Your task to perform on an android device: clear history in the chrome app Image 0: 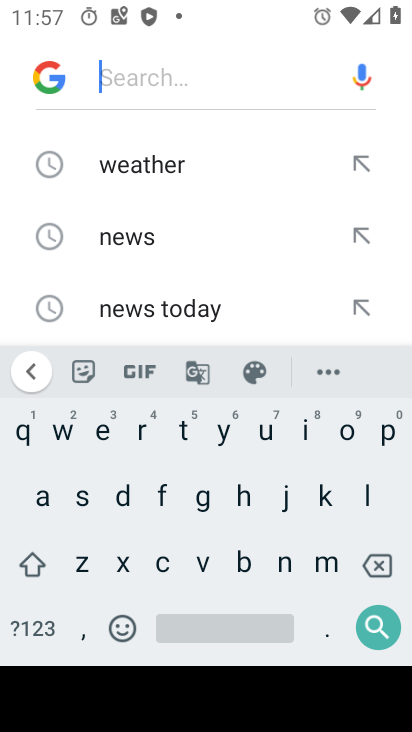
Step 0: press home button
Your task to perform on an android device: clear history in the chrome app Image 1: 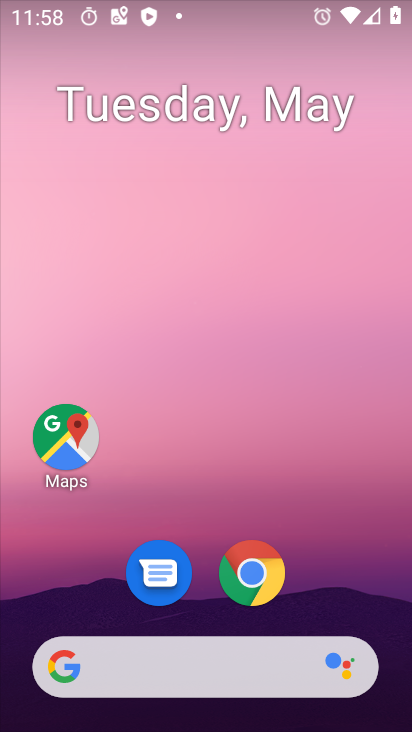
Step 1: drag from (219, 701) to (343, 145)
Your task to perform on an android device: clear history in the chrome app Image 2: 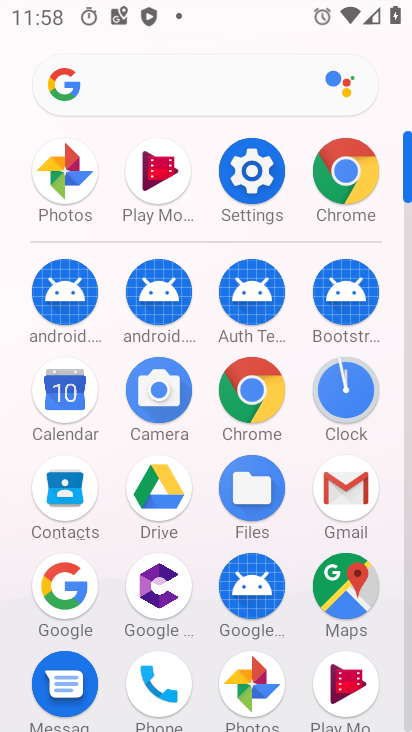
Step 2: click (324, 192)
Your task to perform on an android device: clear history in the chrome app Image 3: 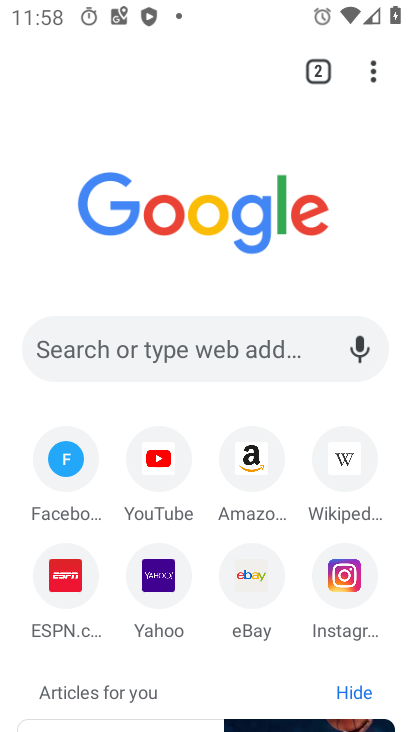
Step 3: click (375, 93)
Your task to perform on an android device: clear history in the chrome app Image 4: 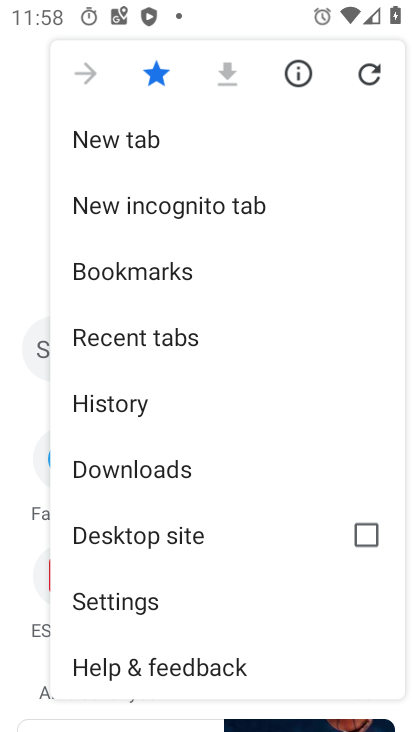
Step 4: click (108, 594)
Your task to perform on an android device: clear history in the chrome app Image 5: 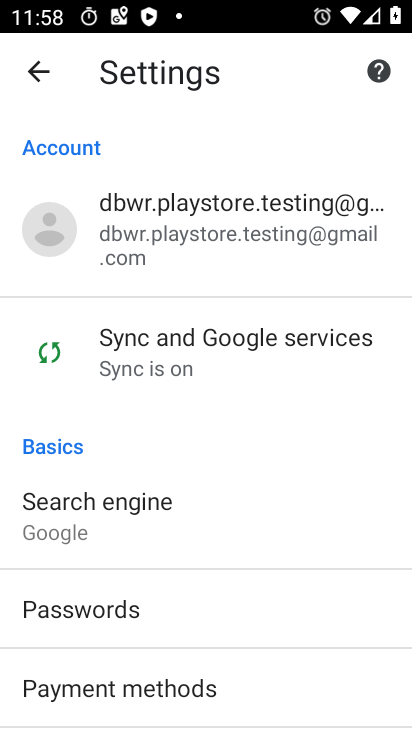
Step 5: drag from (87, 602) to (186, 371)
Your task to perform on an android device: clear history in the chrome app Image 6: 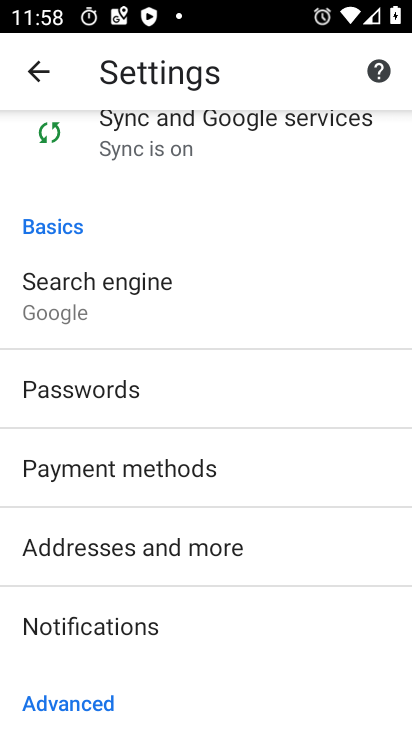
Step 6: drag from (114, 539) to (194, 428)
Your task to perform on an android device: clear history in the chrome app Image 7: 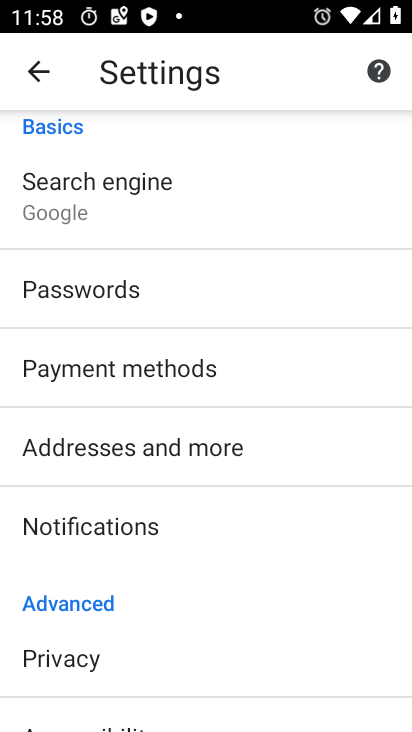
Step 7: drag from (107, 605) to (177, 475)
Your task to perform on an android device: clear history in the chrome app Image 8: 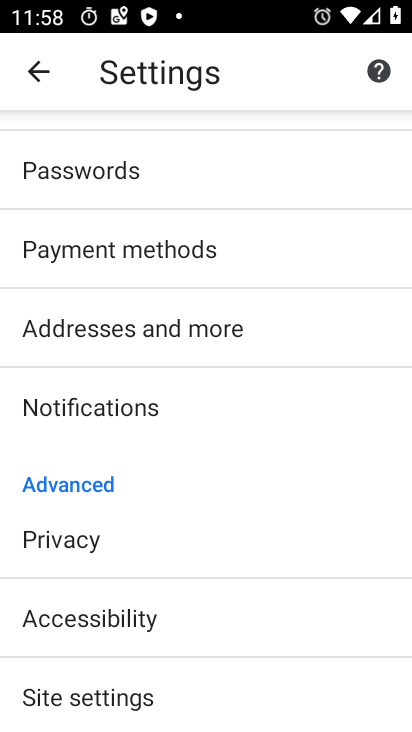
Step 8: click (91, 547)
Your task to perform on an android device: clear history in the chrome app Image 9: 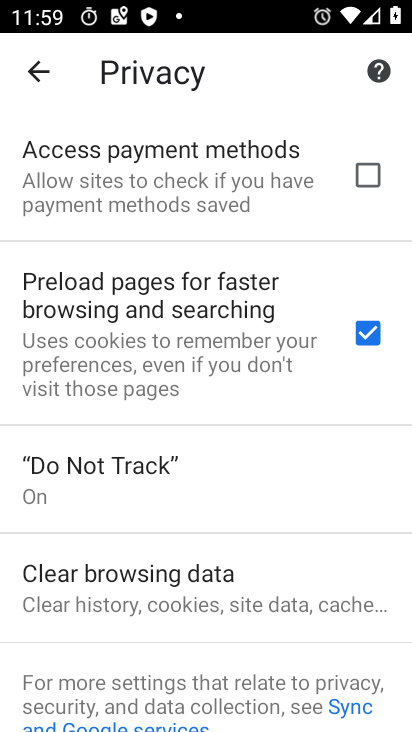
Step 9: drag from (137, 597) to (222, 252)
Your task to perform on an android device: clear history in the chrome app Image 10: 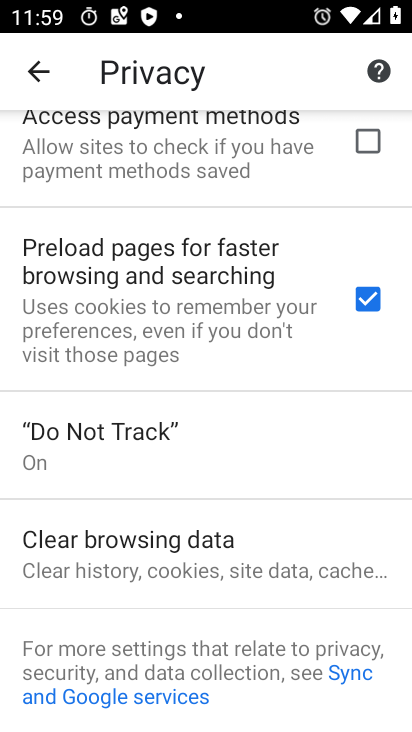
Step 10: click (122, 535)
Your task to perform on an android device: clear history in the chrome app Image 11: 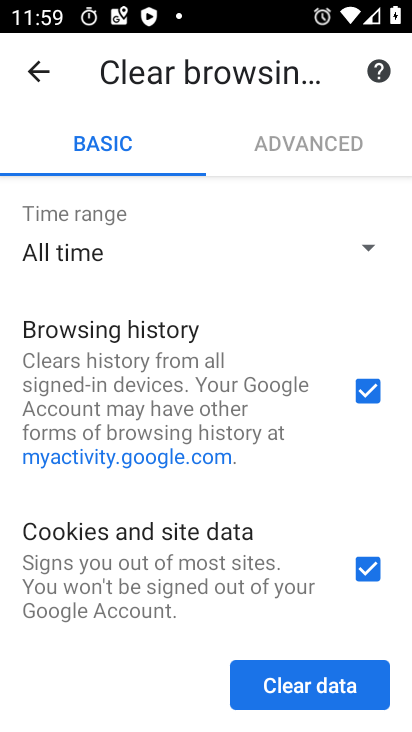
Step 11: click (298, 679)
Your task to perform on an android device: clear history in the chrome app Image 12: 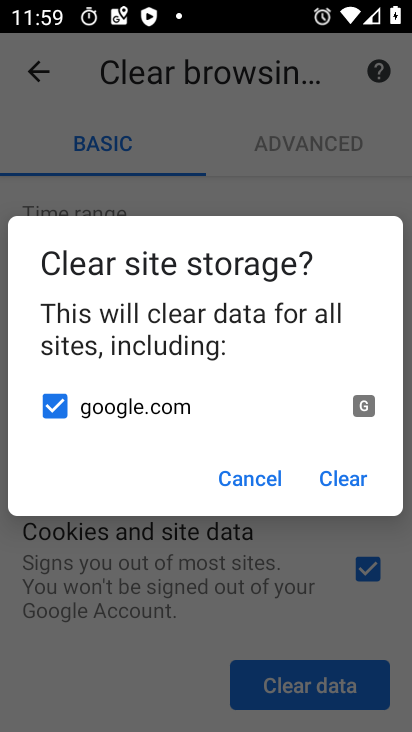
Step 12: task complete